Your task to perform on an android device: open device folders in google photos Image 0: 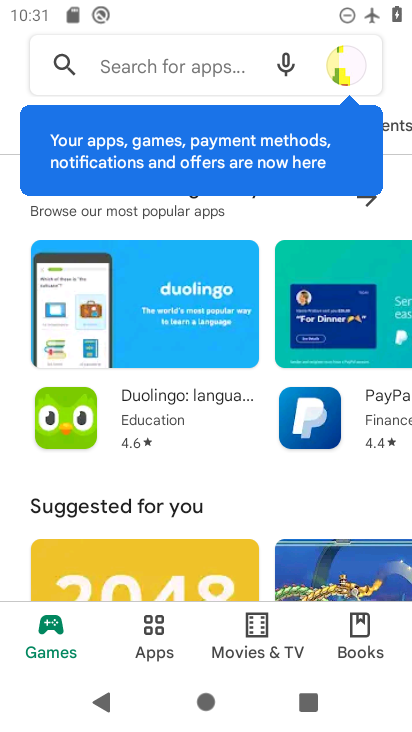
Step 0: press home button
Your task to perform on an android device: open device folders in google photos Image 1: 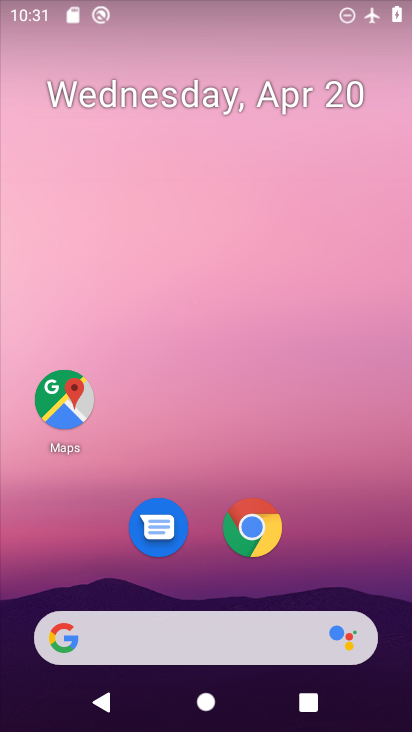
Step 1: drag from (227, 577) to (297, 29)
Your task to perform on an android device: open device folders in google photos Image 2: 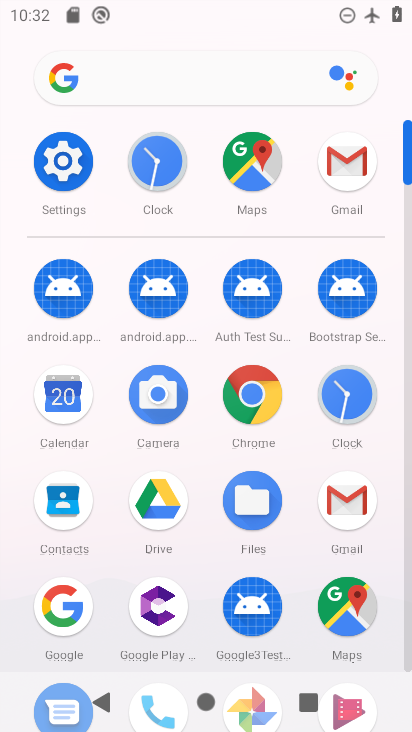
Step 2: drag from (223, 632) to (266, 338)
Your task to perform on an android device: open device folders in google photos Image 3: 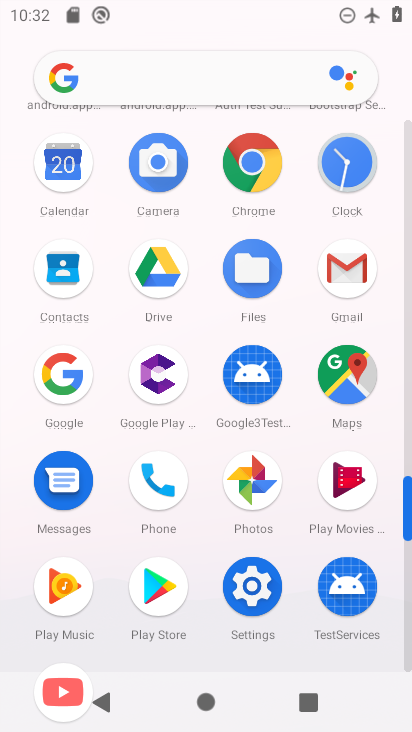
Step 3: click (245, 494)
Your task to perform on an android device: open device folders in google photos Image 4: 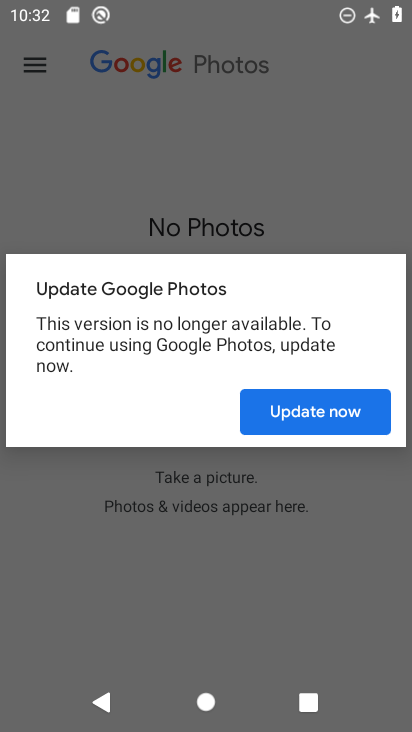
Step 4: click (311, 407)
Your task to perform on an android device: open device folders in google photos Image 5: 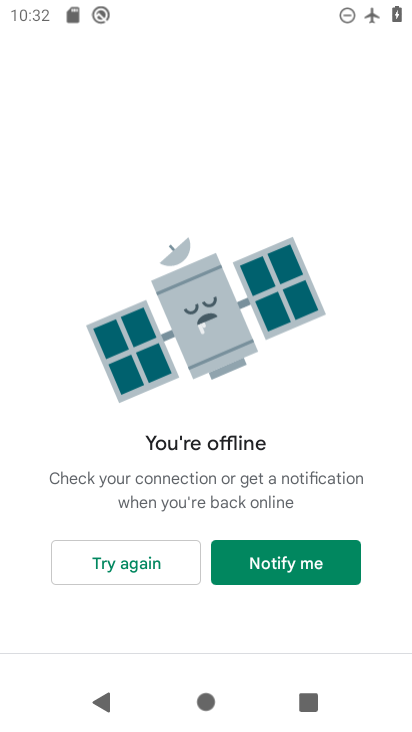
Step 5: press back button
Your task to perform on an android device: open device folders in google photos Image 6: 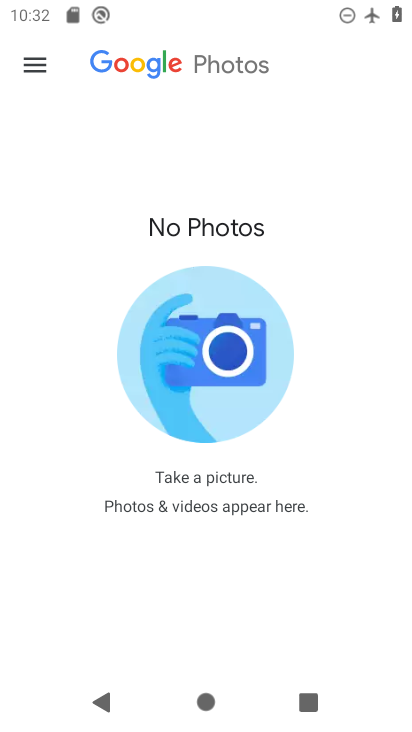
Step 6: click (32, 50)
Your task to perform on an android device: open device folders in google photos Image 7: 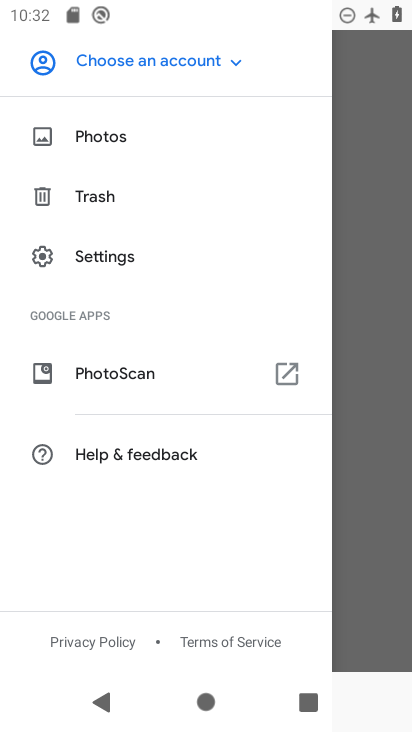
Step 7: task complete